Your task to perform on an android device: turn off smart reply in the gmail app Image 0: 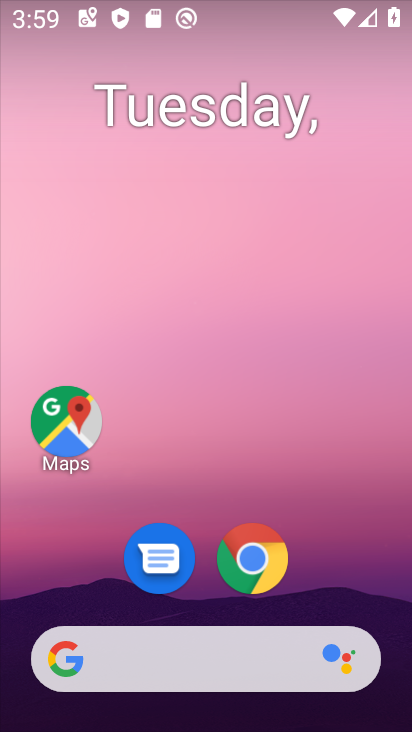
Step 0: drag from (72, 621) to (273, 23)
Your task to perform on an android device: turn off smart reply in the gmail app Image 1: 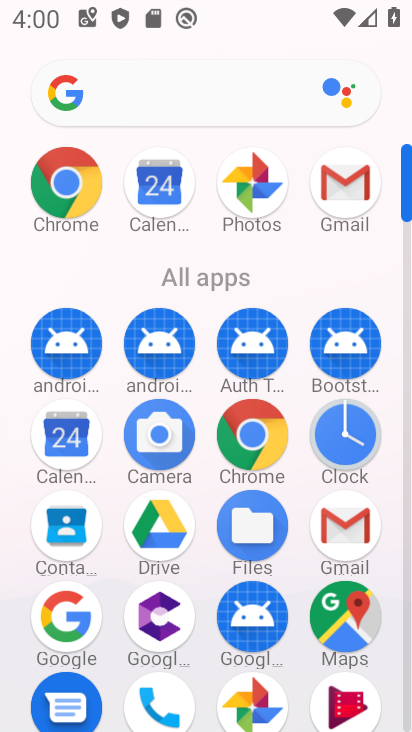
Step 1: click (324, 540)
Your task to perform on an android device: turn off smart reply in the gmail app Image 2: 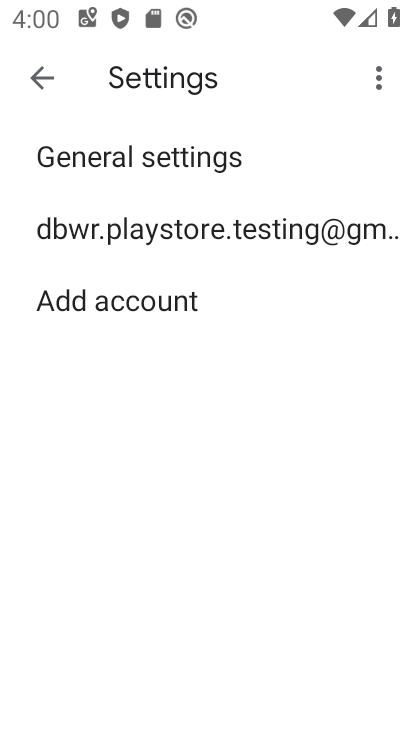
Step 2: click (293, 230)
Your task to perform on an android device: turn off smart reply in the gmail app Image 3: 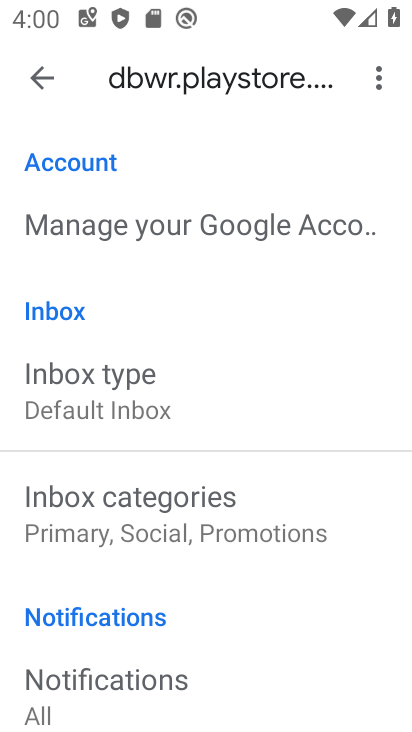
Step 3: drag from (192, 633) to (343, 140)
Your task to perform on an android device: turn off smart reply in the gmail app Image 4: 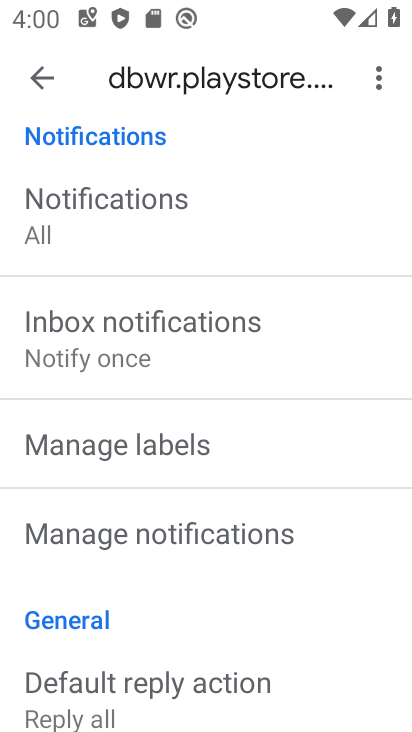
Step 4: drag from (202, 627) to (368, 176)
Your task to perform on an android device: turn off smart reply in the gmail app Image 5: 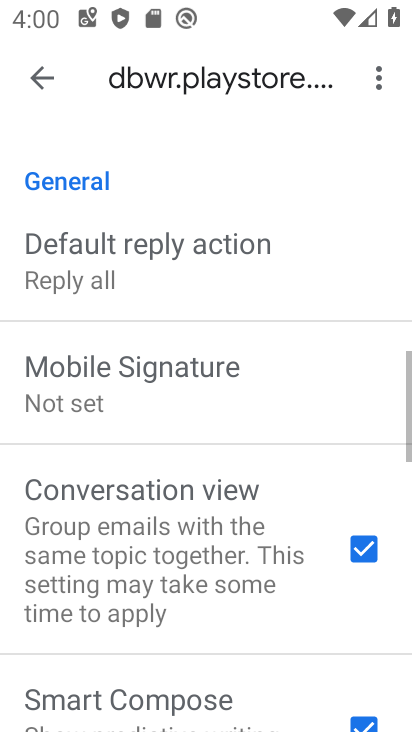
Step 5: drag from (139, 659) to (309, 160)
Your task to perform on an android device: turn off smart reply in the gmail app Image 6: 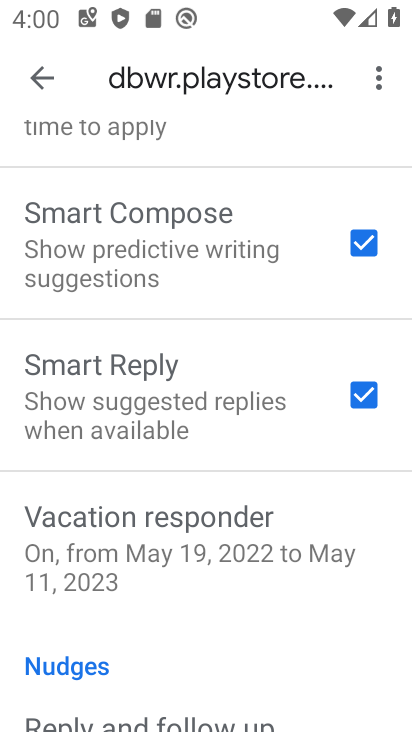
Step 6: click (373, 402)
Your task to perform on an android device: turn off smart reply in the gmail app Image 7: 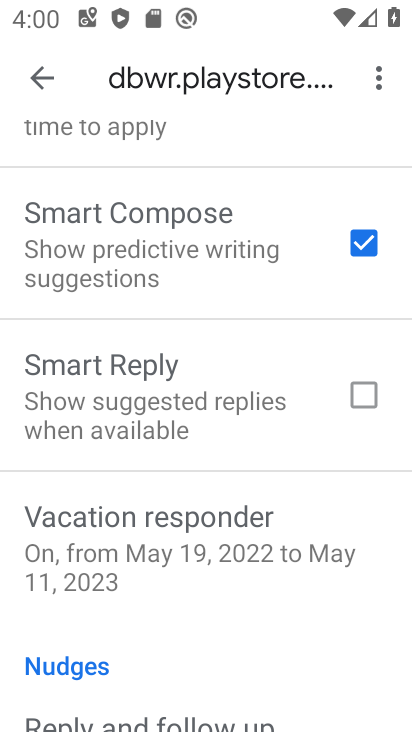
Step 7: task complete